Your task to perform on an android device: turn off location history Image 0: 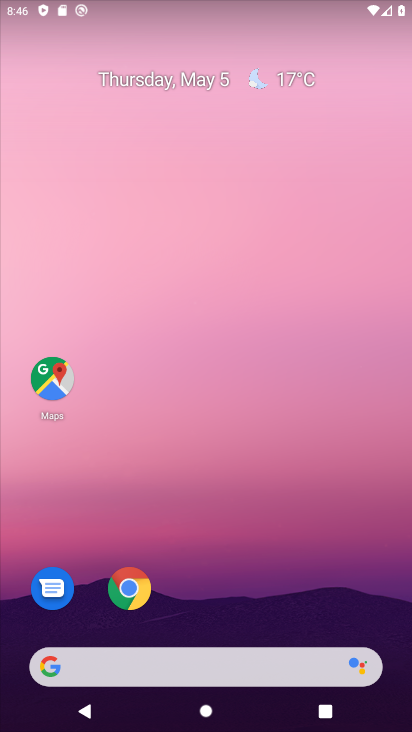
Step 0: drag from (269, 612) to (222, 293)
Your task to perform on an android device: turn off location history Image 1: 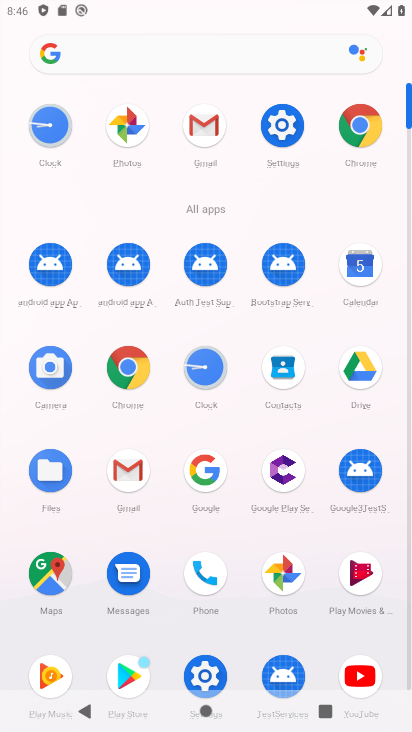
Step 1: click (273, 123)
Your task to perform on an android device: turn off location history Image 2: 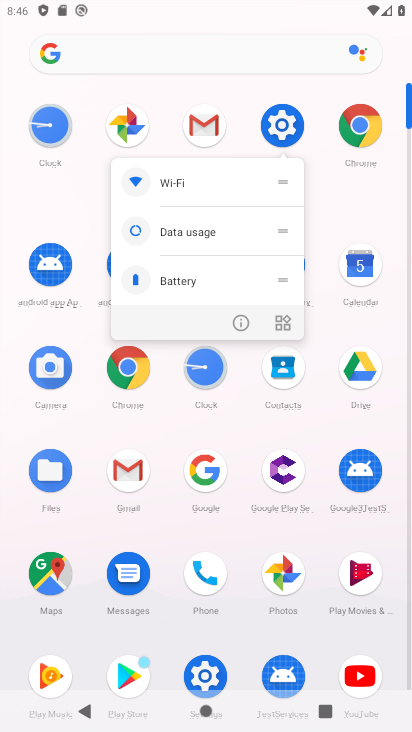
Step 2: click (212, 681)
Your task to perform on an android device: turn off location history Image 3: 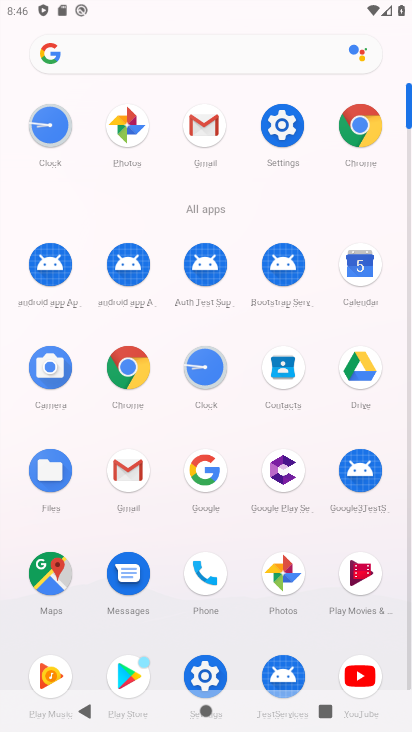
Step 3: click (199, 669)
Your task to perform on an android device: turn off location history Image 4: 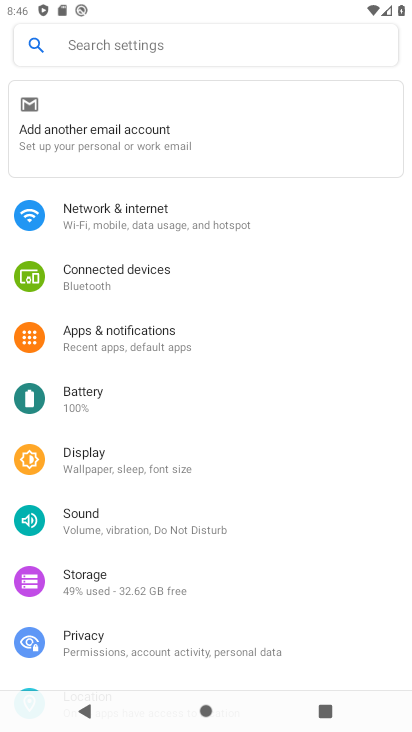
Step 4: drag from (169, 570) to (231, 247)
Your task to perform on an android device: turn off location history Image 5: 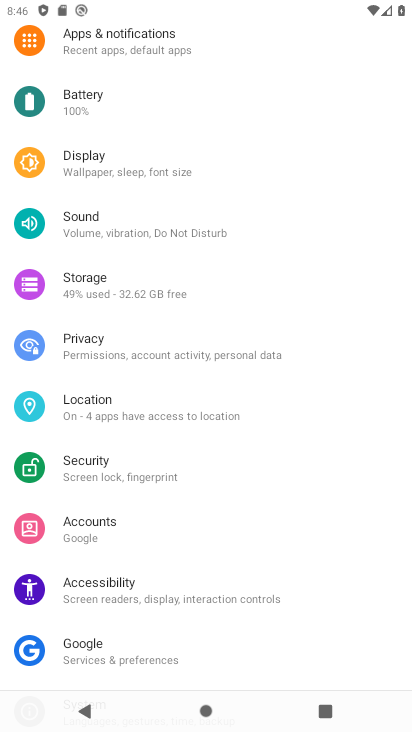
Step 5: click (187, 417)
Your task to perform on an android device: turn off location history Image 6: 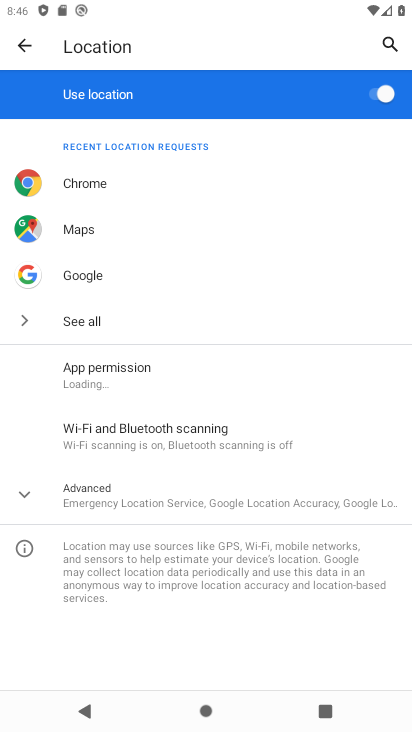
Step 6: click (136, 499)
Your task to perform on an android device: turn off location history Image 7: 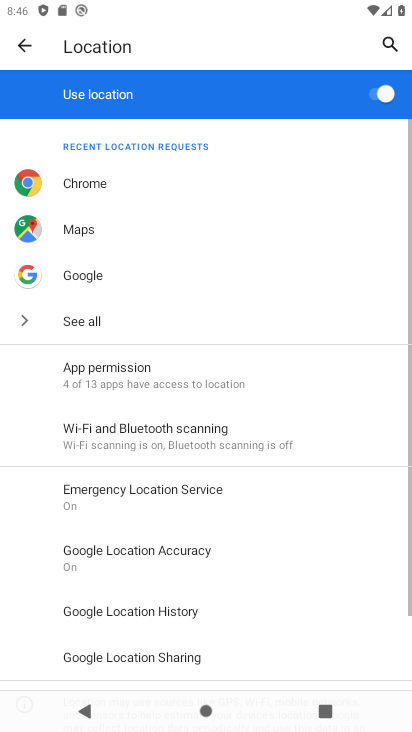
Step 7: drag from (146, 624) to (170, 497)
Your task to perform on an android device: turn off location history Image 8: 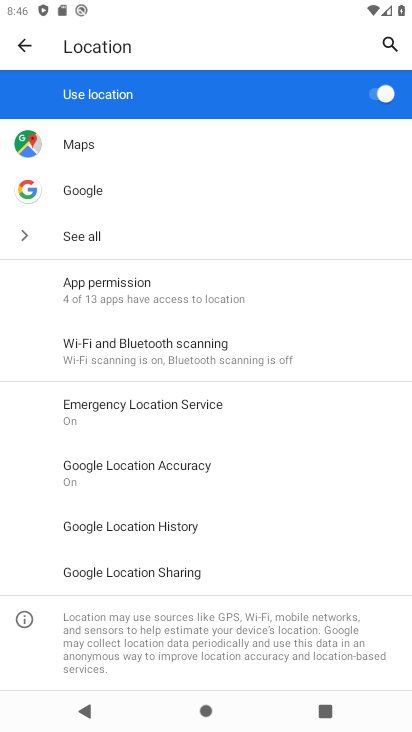
Step 8: click (178, 534)
Your task to perform on an android device: turn off location history Image 9: 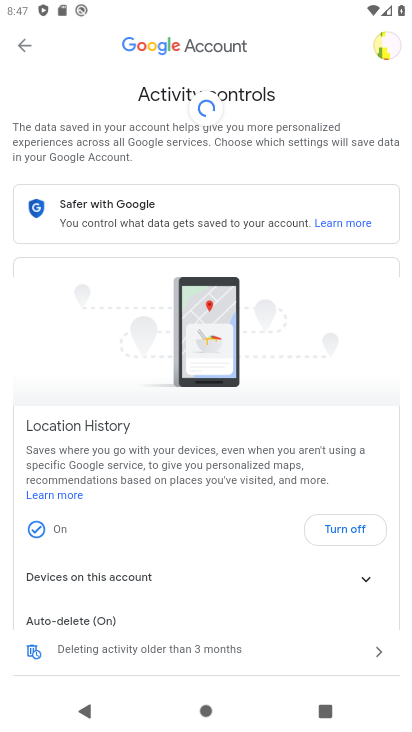
Step 9: click (334, 524)
Your task to perform on an android device: turn off location history Image 10: 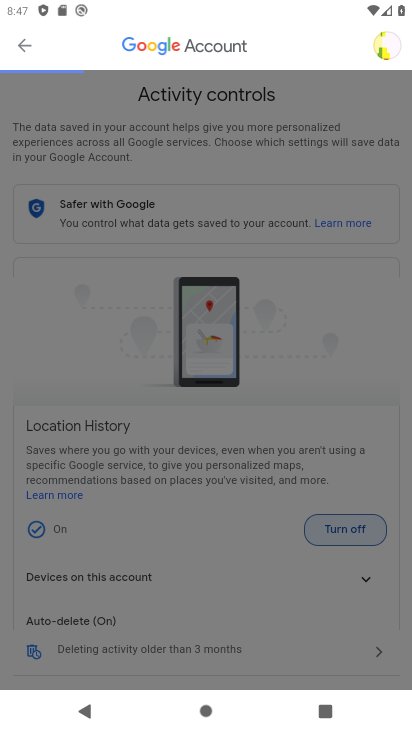
Step 10: click (341, 525)
Your task to perform on an android device: turn off location history Image 11: 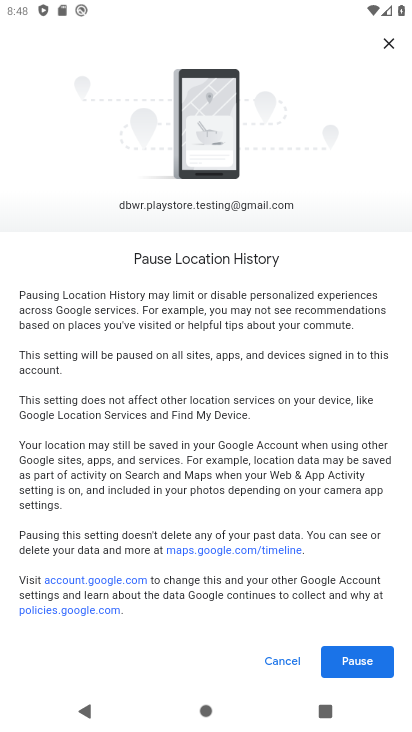
Step 11: task complete